Your task to perform on an android device: View the shopping cart on newegg.com. Image 0: 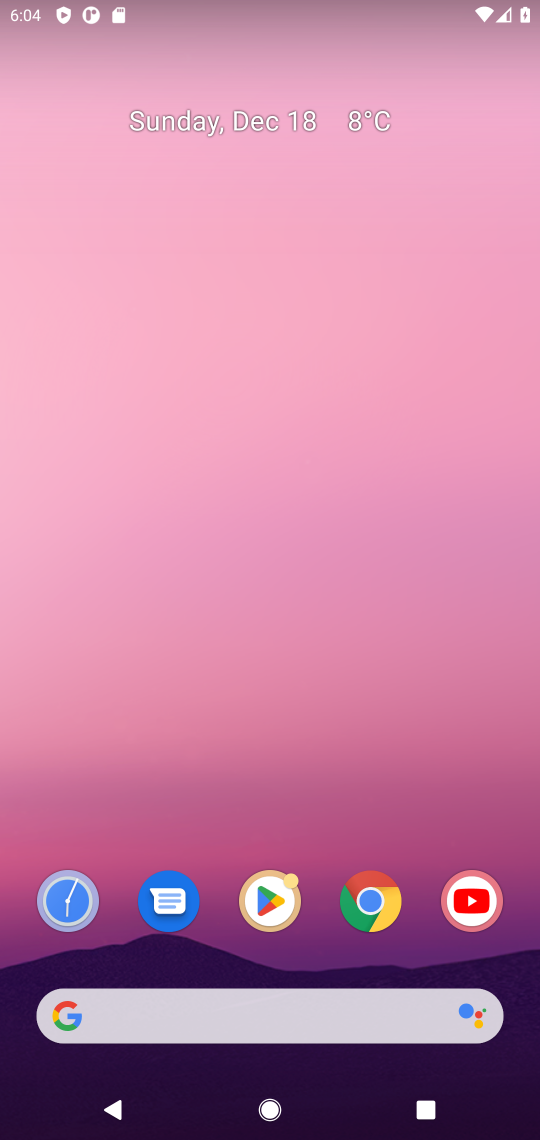
Step 0: click (372, 879)
Your task to perform on an android device: View the shopping cart on newegg.com. Image 1: 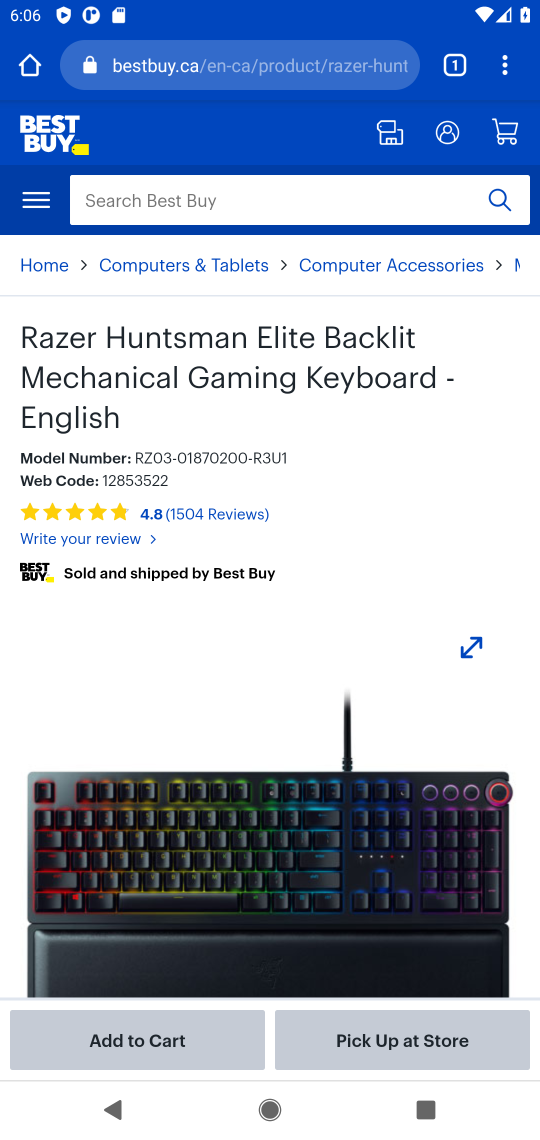
Step 1: click (255, 49)
Your task to perform on an android device: View the shopping cart on newegg.com. Image 2: 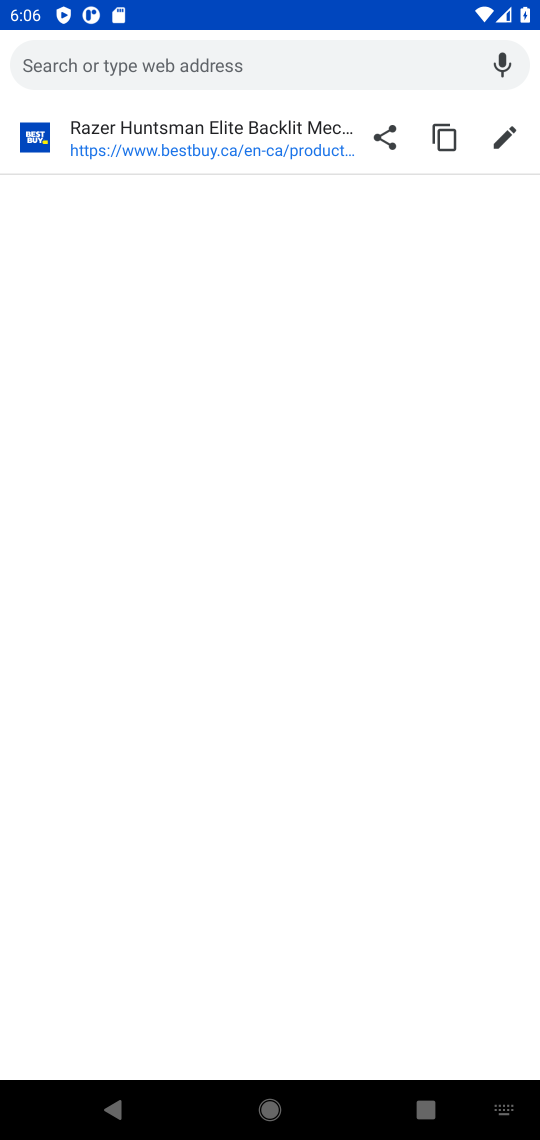
Step 2: type "newegg.com"
Your task to perform on an android device: View the shopping cart on newegg.com. Image 3: 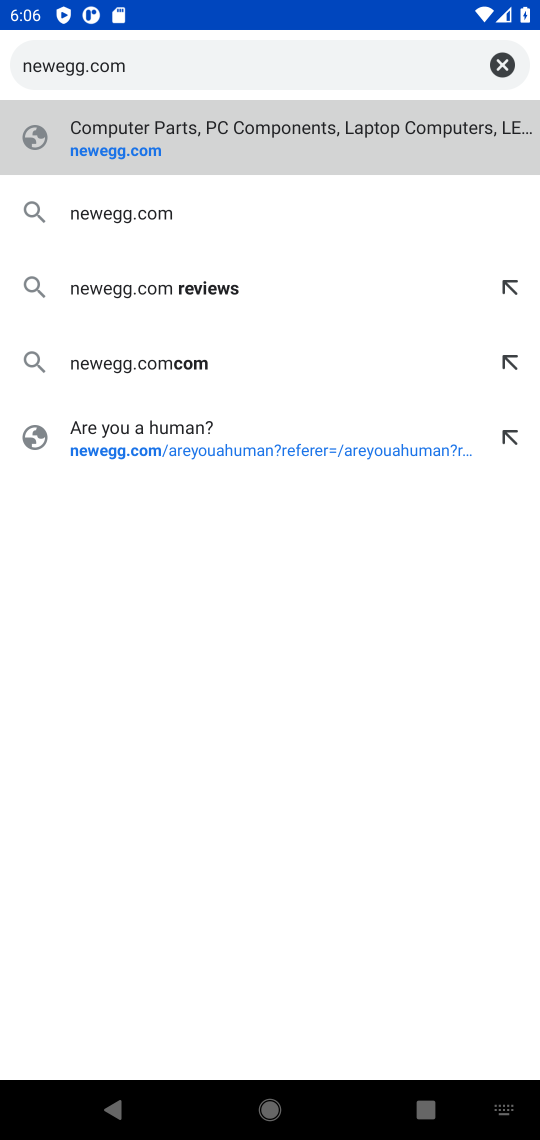
Step 3: click (263, 145)
Your task to perform on an android device: View the shopping cart on newegg.com. Image 4: 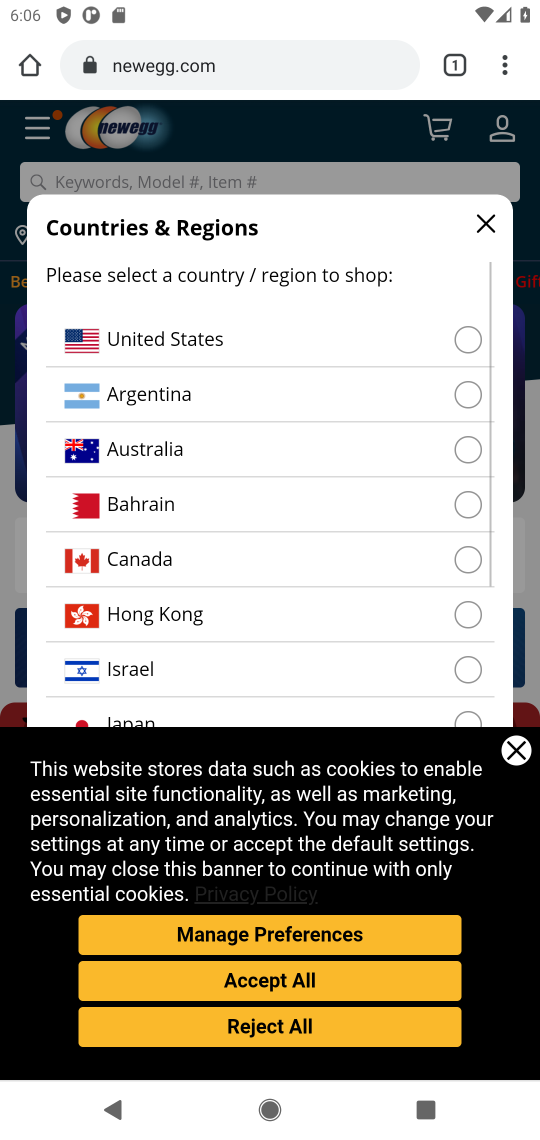
Step 4: click (442, 334)
Your task to perform on an android device: View the shopping cart on newegg.com. Image 5: 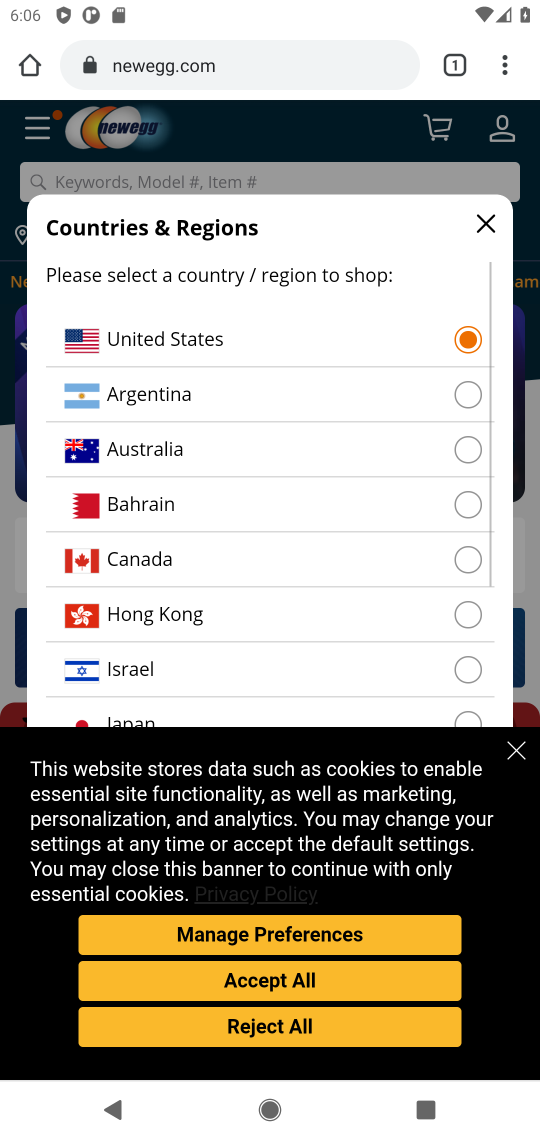
Step 5: click (300, 986)
Your task to perform on an android device: View the shopping cart on newegg.com. Image 6: 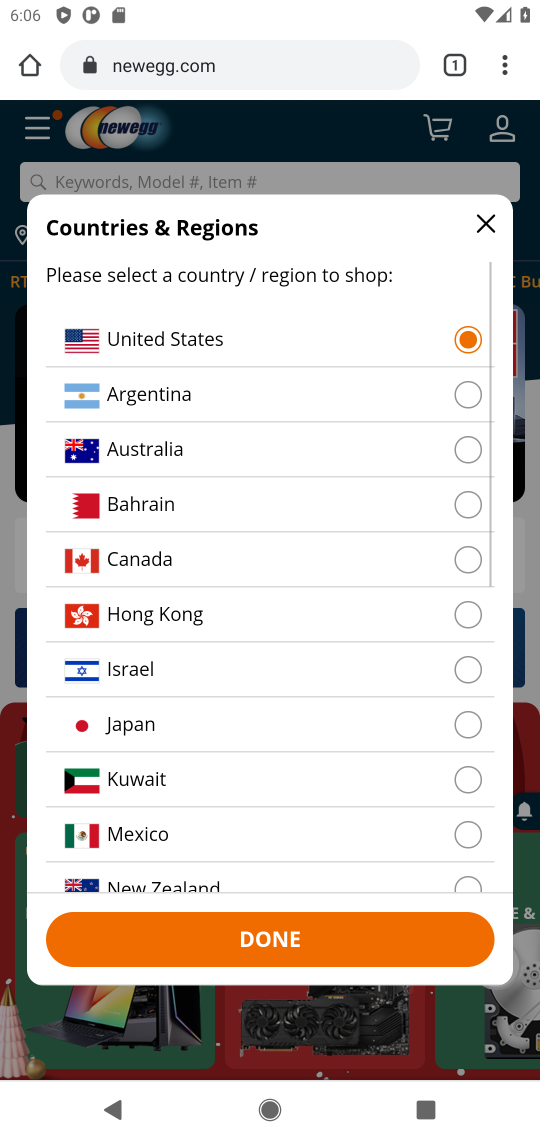
Step 6: click (347, 930)
Your task to perform on an android device: View the shopping cart on newegg.com. Image 7: 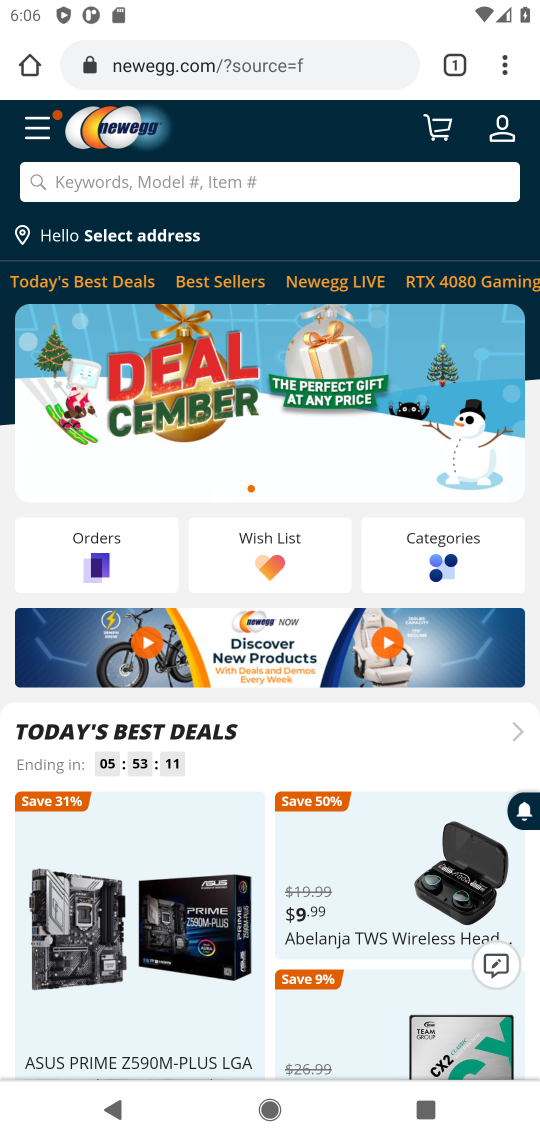
Step 7: click (417, 140)
Your task to perform on an android device: View the shopping cart on newegg.com. Image 8: 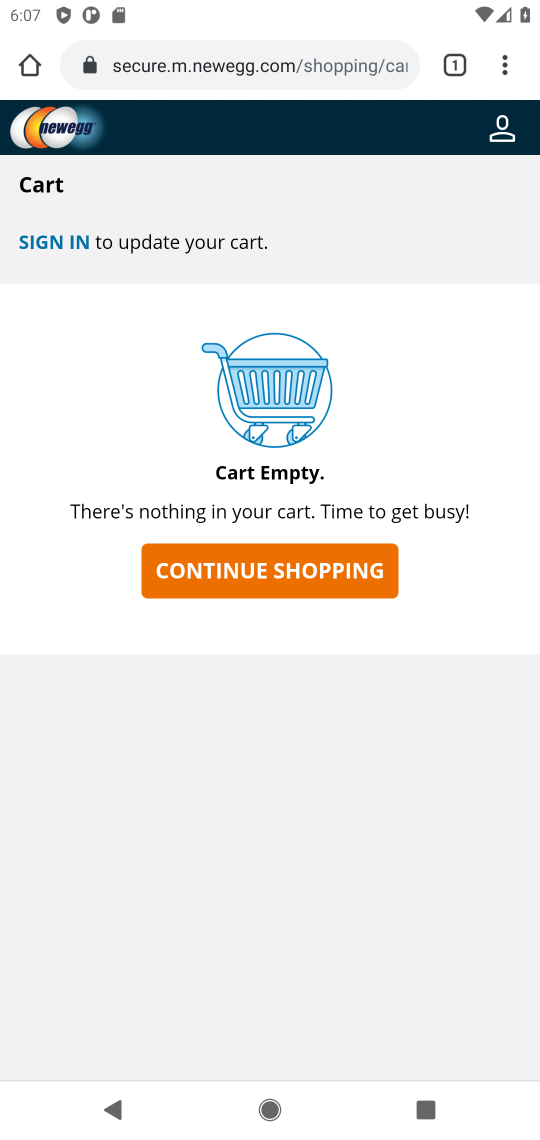
Step 8: task complete